Your task to perform on an android device: change the clock display to show seconds Image 0: 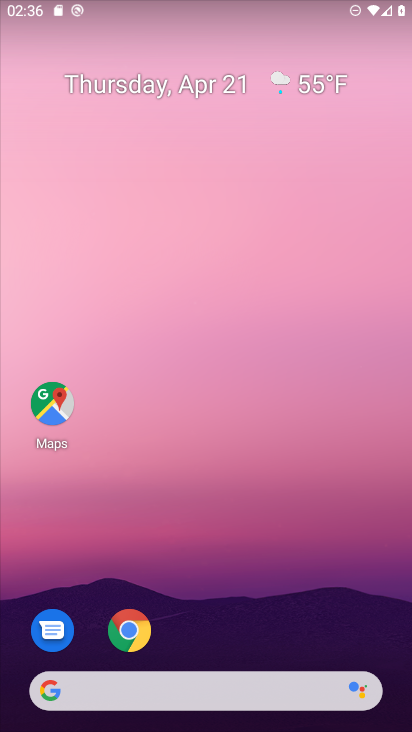
Step 0: drag from (217, 602) to (199, 9)
Your task to perform on an android device: change the clock display to show seconds Image 1: 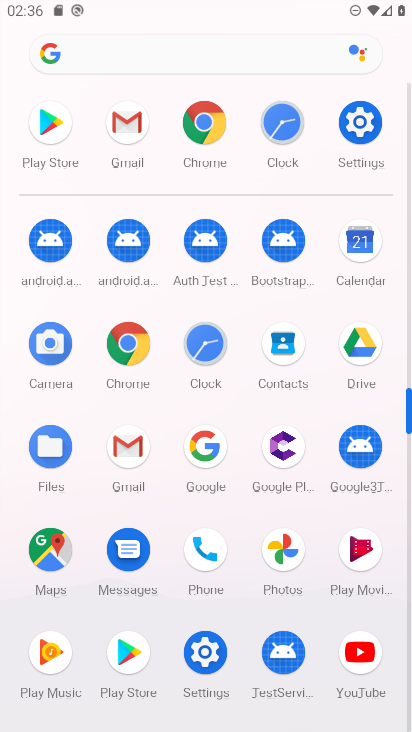
Step 1: click (273, 135)
Your task to perform on an android device: change the clock display to show seconds Image 2: 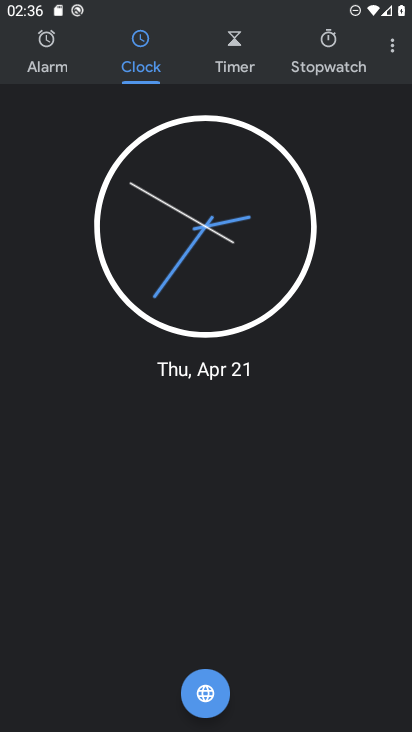
Step 2: click (382, 40)
Your task to perform on an android device: change the clock display to show seconds Image 3: 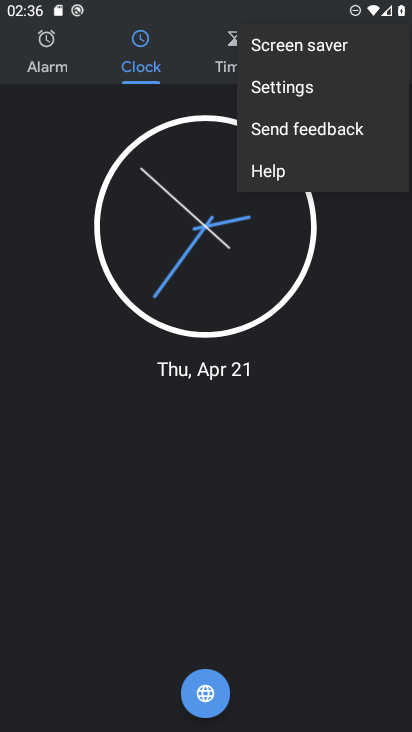
Step 3: click (288, 99)
Your task to perform on an android device: change the clock display to show seconds Image 4: 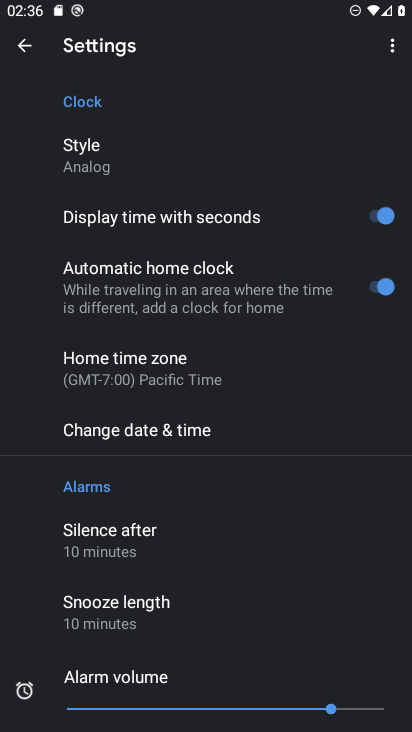
Step 4: task complete